Your task to perform on an android device: What's the weather going to be tomorrow? Image 0: 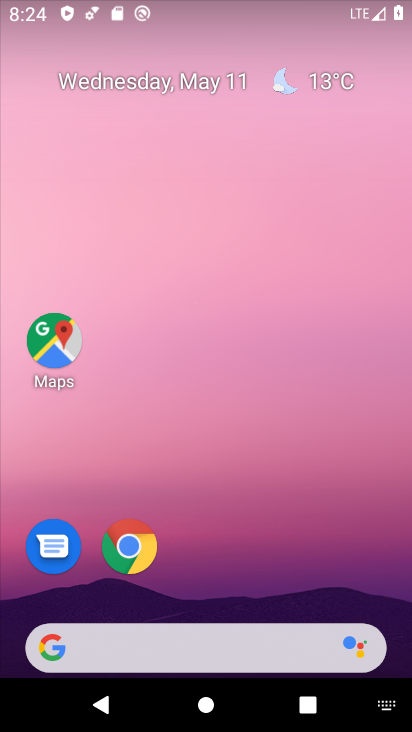
Step 0: drag from (278, 546) to (333, 105)
Your task to perform on an android device: What's the weather going to be tomorrow? Image 1: 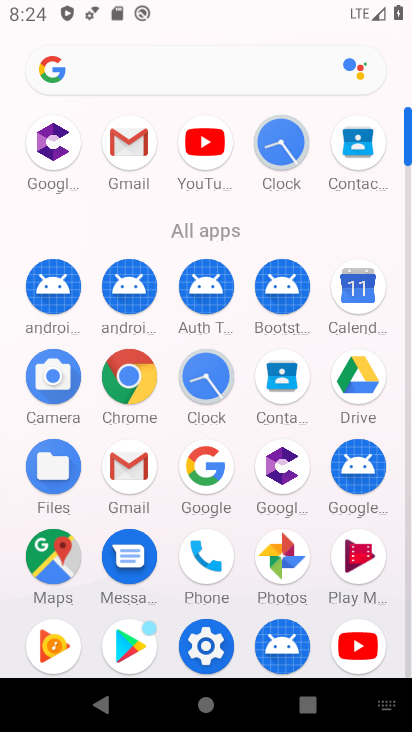
Step 1: click (124, 62)
Your task to perform on an android device: What's the weather going to be tomorrow? Image 2: 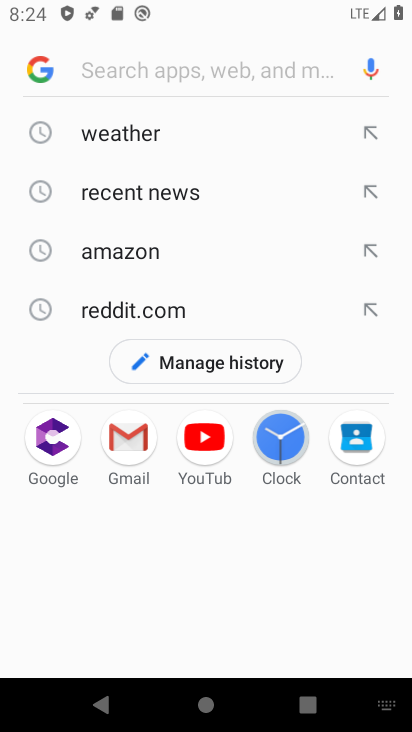
Step 2: click (105, 135)
Your task to perform on an android device: What's the weather going to be tomorrow? Image 3: 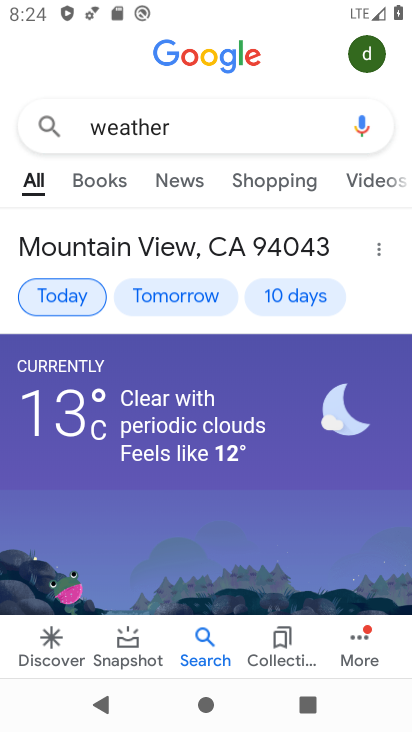
Step 3: click (167, 284)
Your task to perform on an android device: What's the weather going to be tomorrow? Image 4: 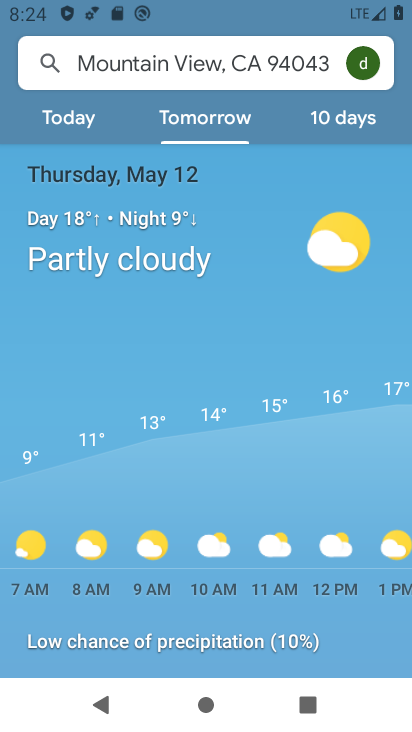
Step 4: task complete